Your task to perform on an android device: Search for Mexican restaurants on Maps Image 0: 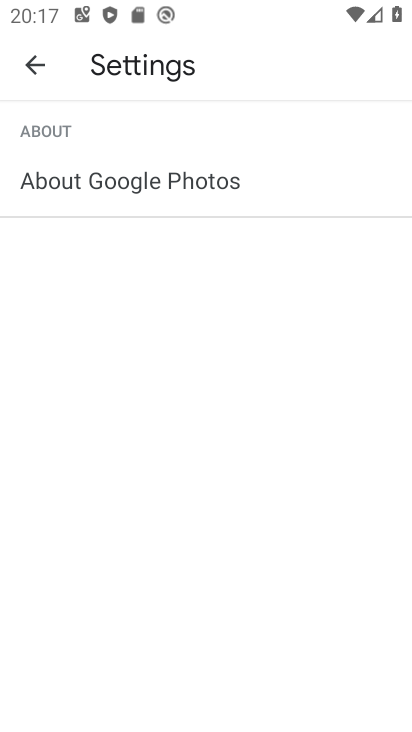
Step 0: press home button
Your task to perform on an android device: Search for Mexican restaurants on Maps Image 1: 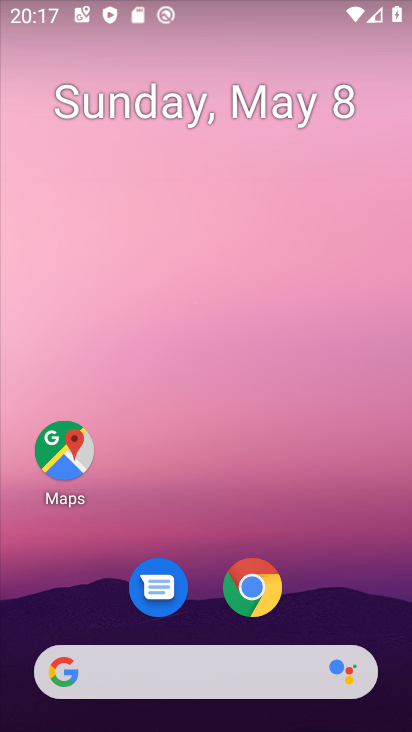
Step 1: click (64, 459)
Your task to perform on an android device: Search for Mexican restaurants on Maps Image 2: 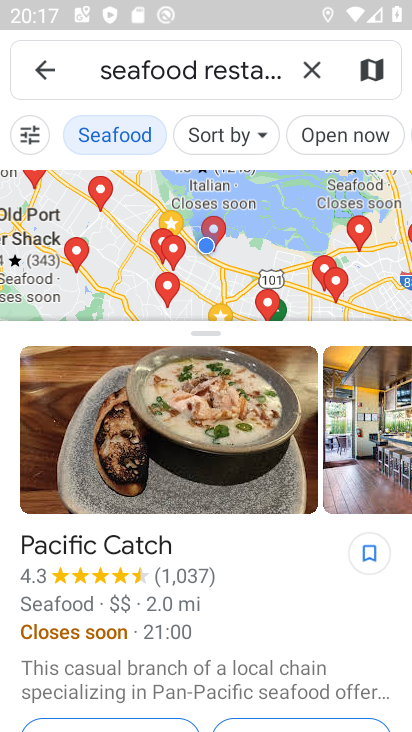
Step 2: click (309, 73)
Your task to perform on an android device: Search for Mexican restaurants on Maps Image 3: 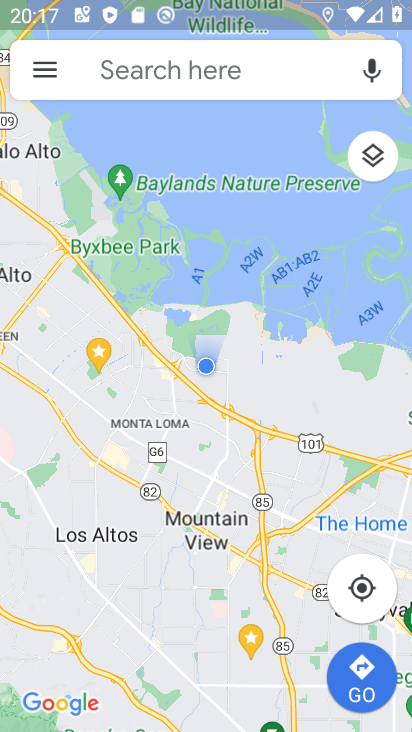
Step 3: click (192, 71)
Your task to perform on an android device: Search for Mexican restaurants on Maps Image 4: 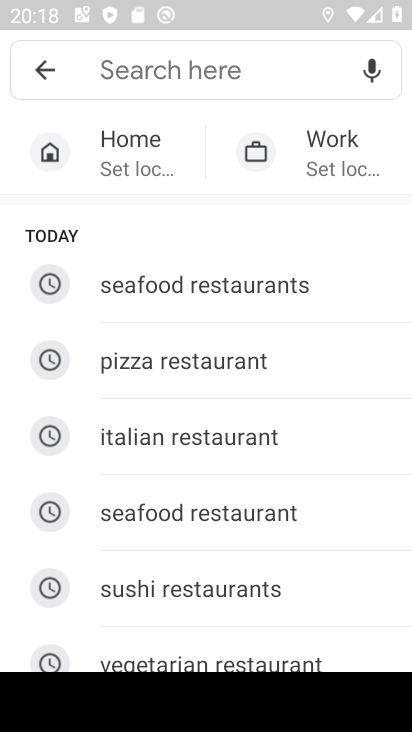
Step 4: type "Mexican restaurants"
Your task to perform on an android device: Search for Mexican restaurants on Maps Image 5: 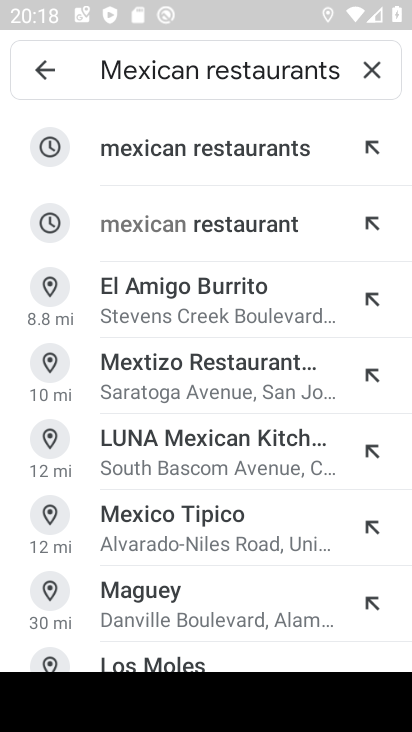
Step 5: click (217, 143)
Your task to perform on an android device: Search for Mexican restaurants on Maps Image 6: 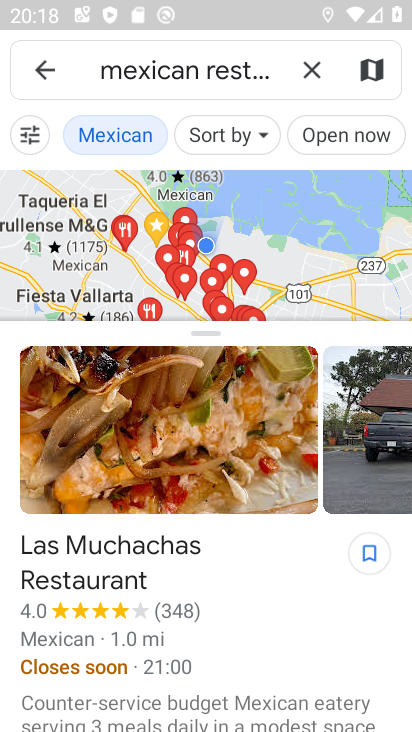
Step 6: task complete